Your task to perform on an android device: Open the map Image 0: 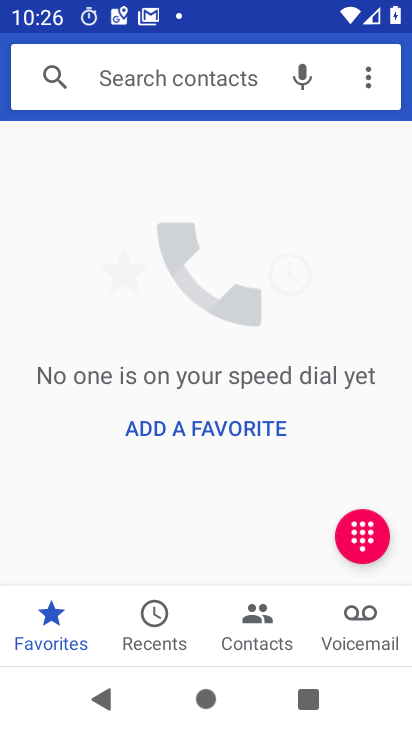
Step 0: press home button
Your task to perform on an android device: Open the map Image 1: 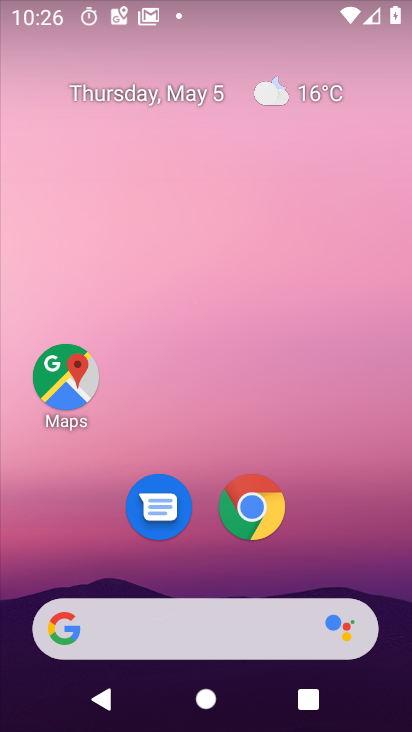
Step 1: click (60, 378)
Your task to perform on an android device: Open the map Image 2: 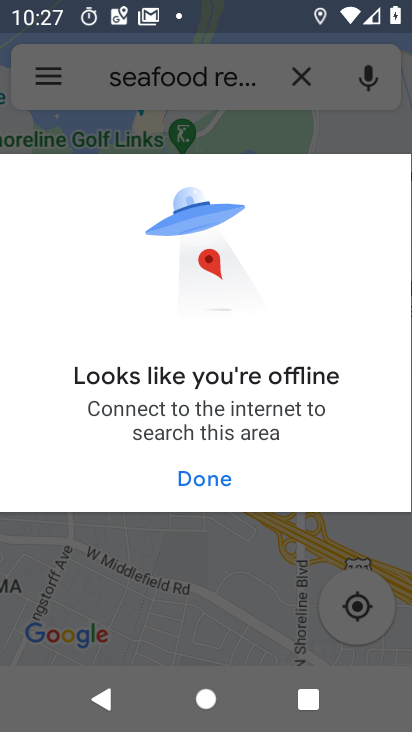
Step 2: click (183, 487)
Your task to perform on an android device: Open the map Image 3: 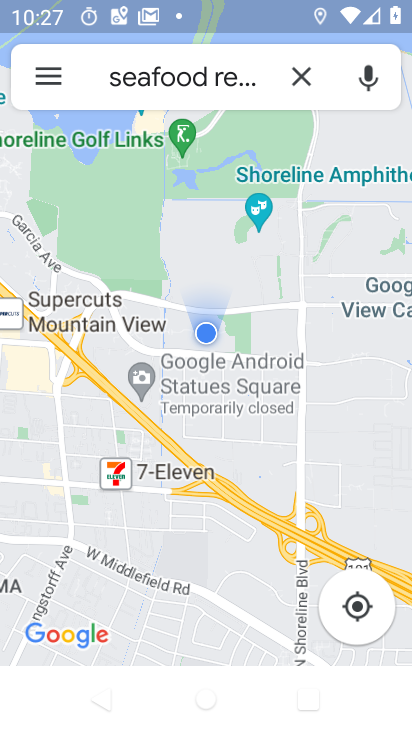
Step 3: task complete